Your task to perform on an android device: Open Google Chrome Image 0: 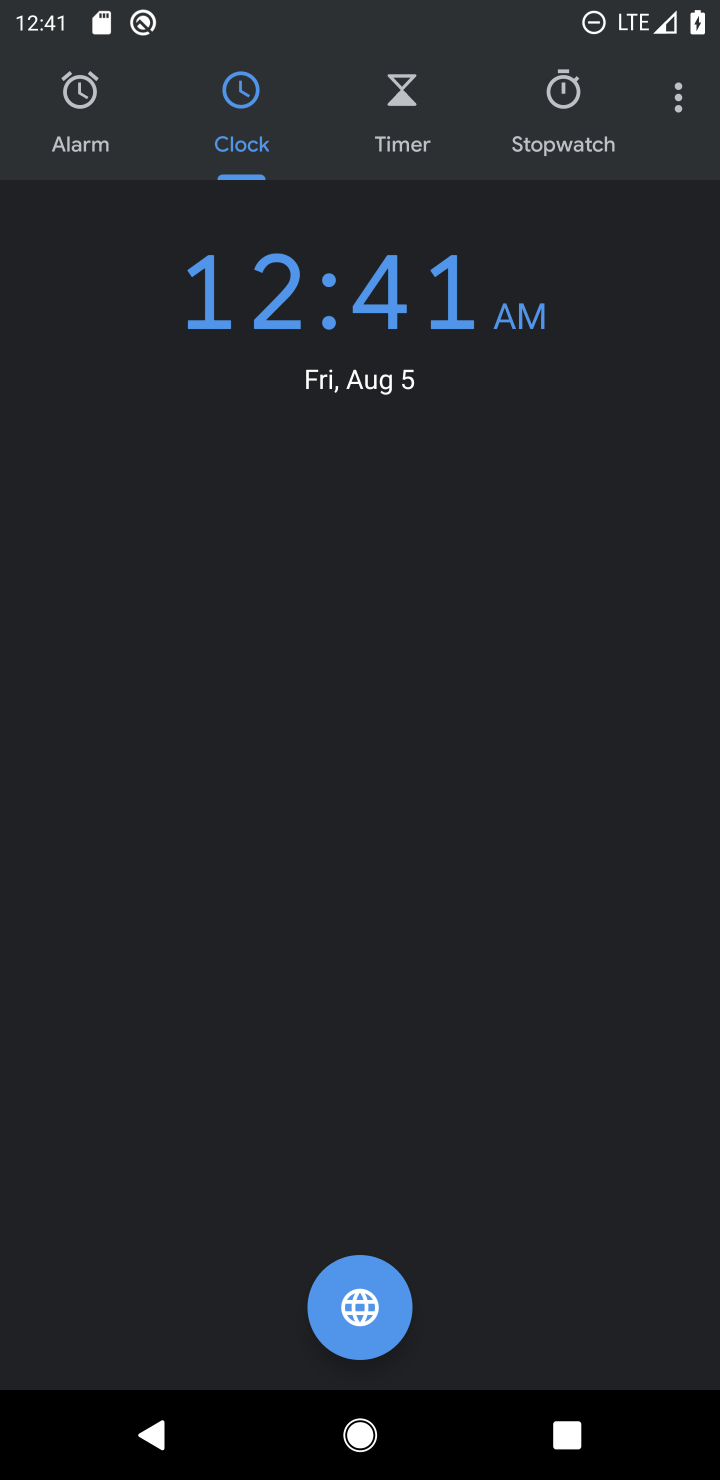
Step 0: press home button
Your task to perform on an android device: Open Google Chrome Image 1: 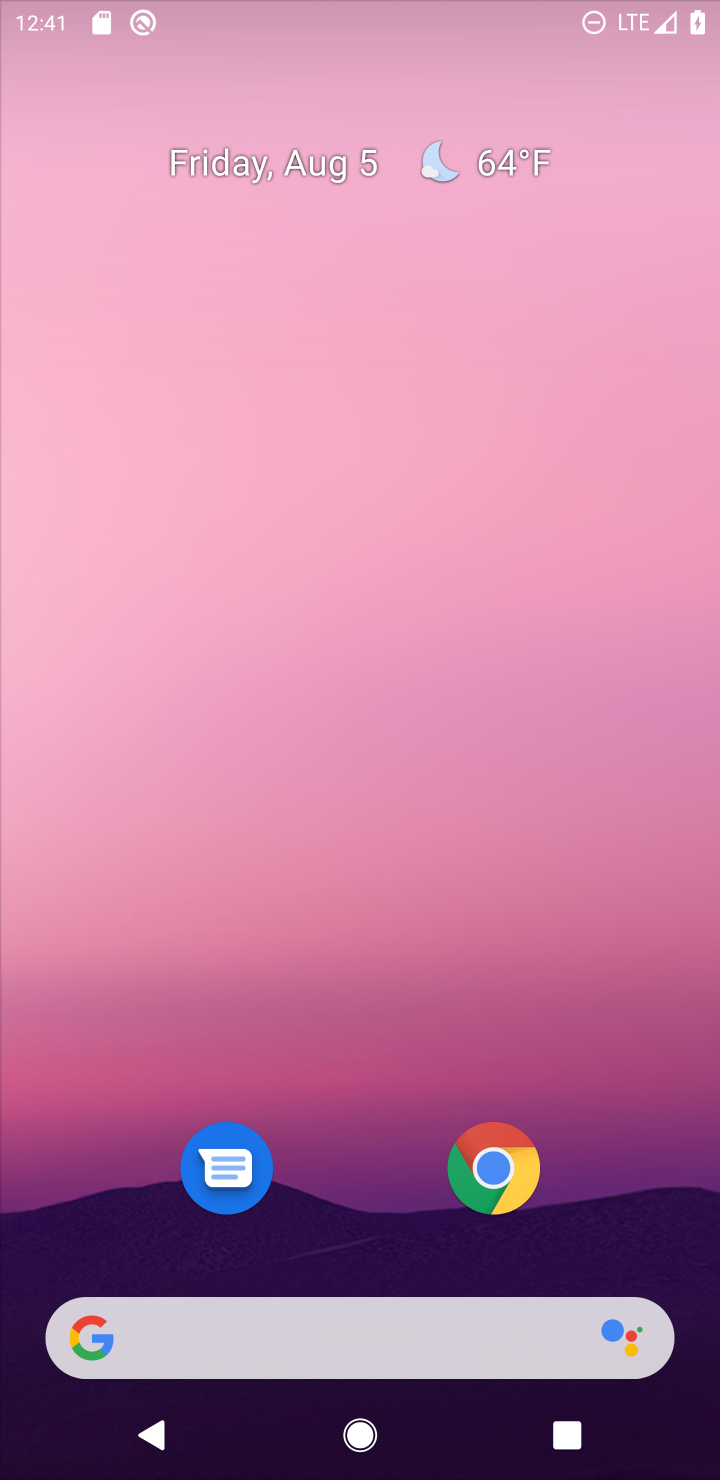
Step 1: drag from (642, 1234) to (319, 70)
Your task to perform on an android device: Open Google Chrome Image 2: 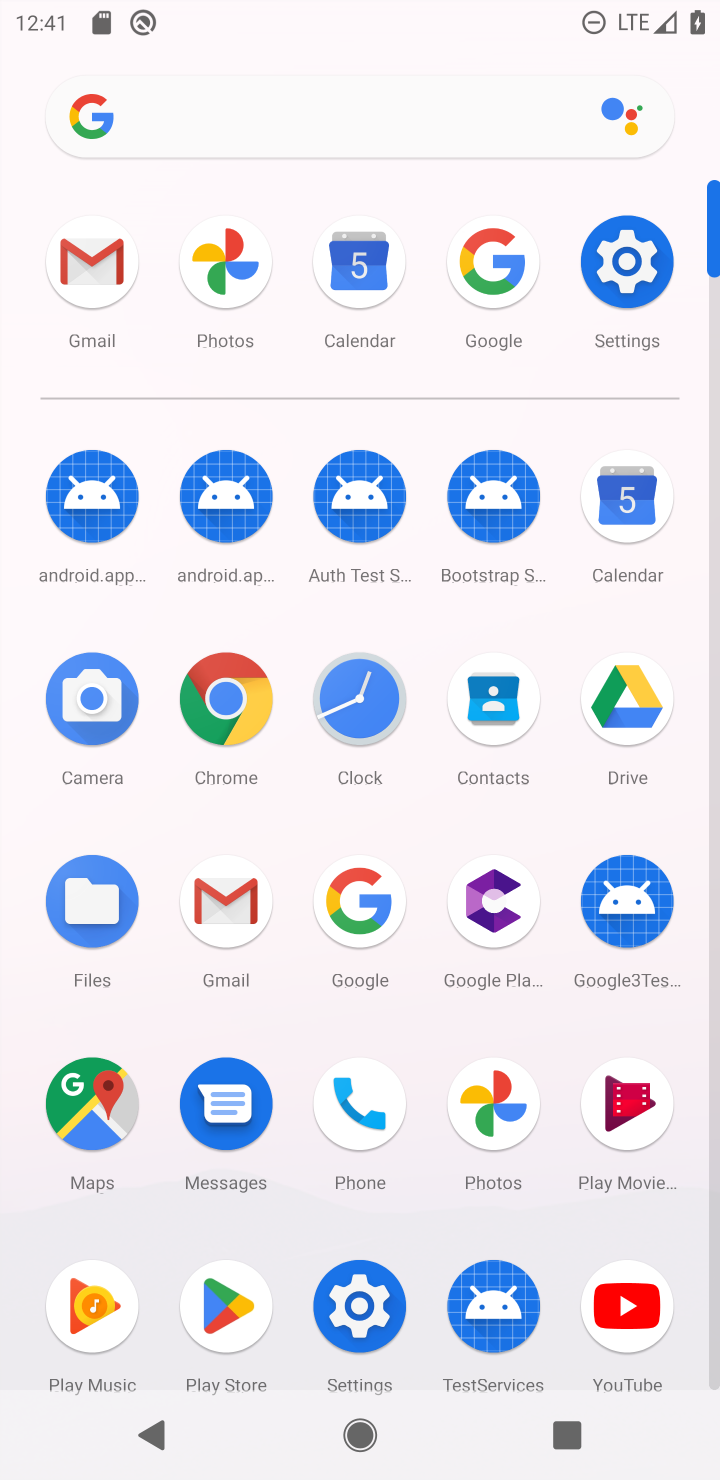
Step 2: click (225, 706)
Your task to perform on an android device: Open Google Chrome Image 3: 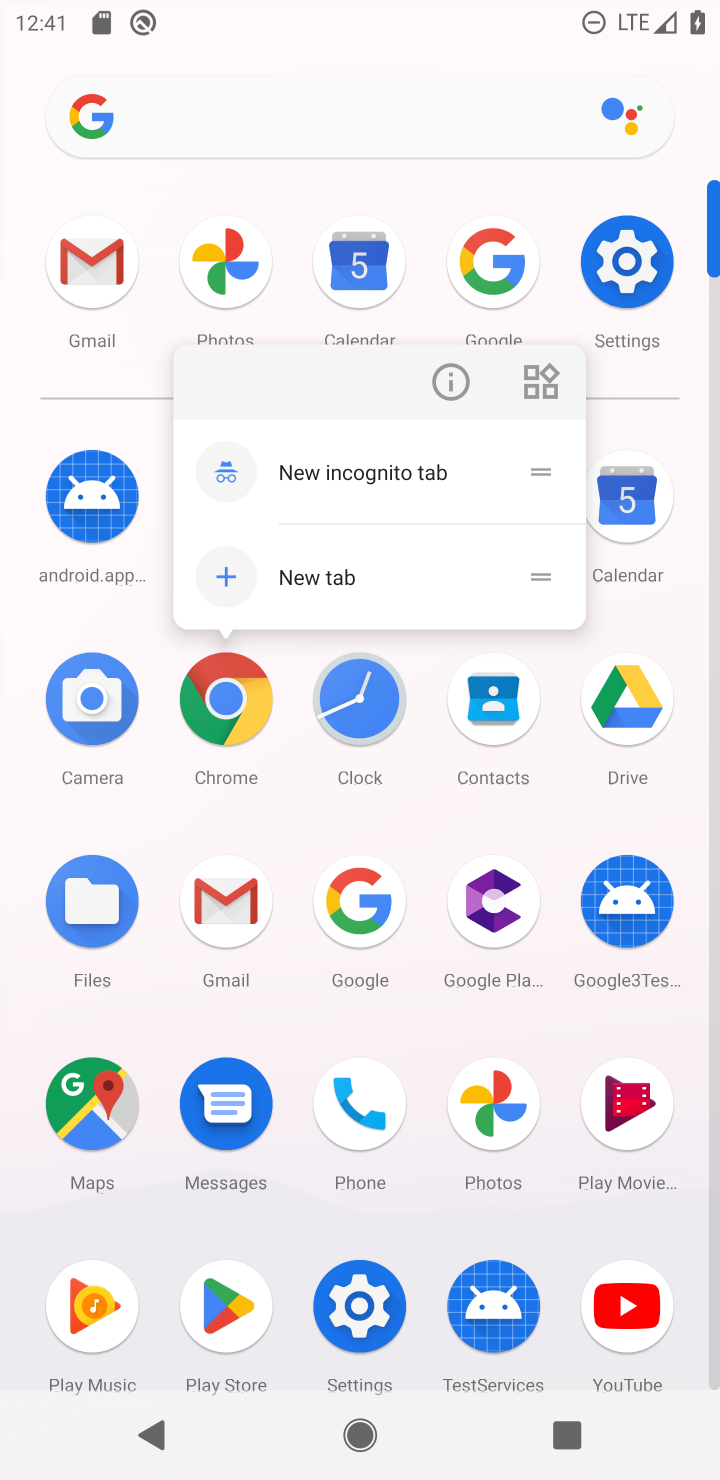
Step 3: click (225, 706)
Your task to perform on an android device: Open Google Chrome Image 4: 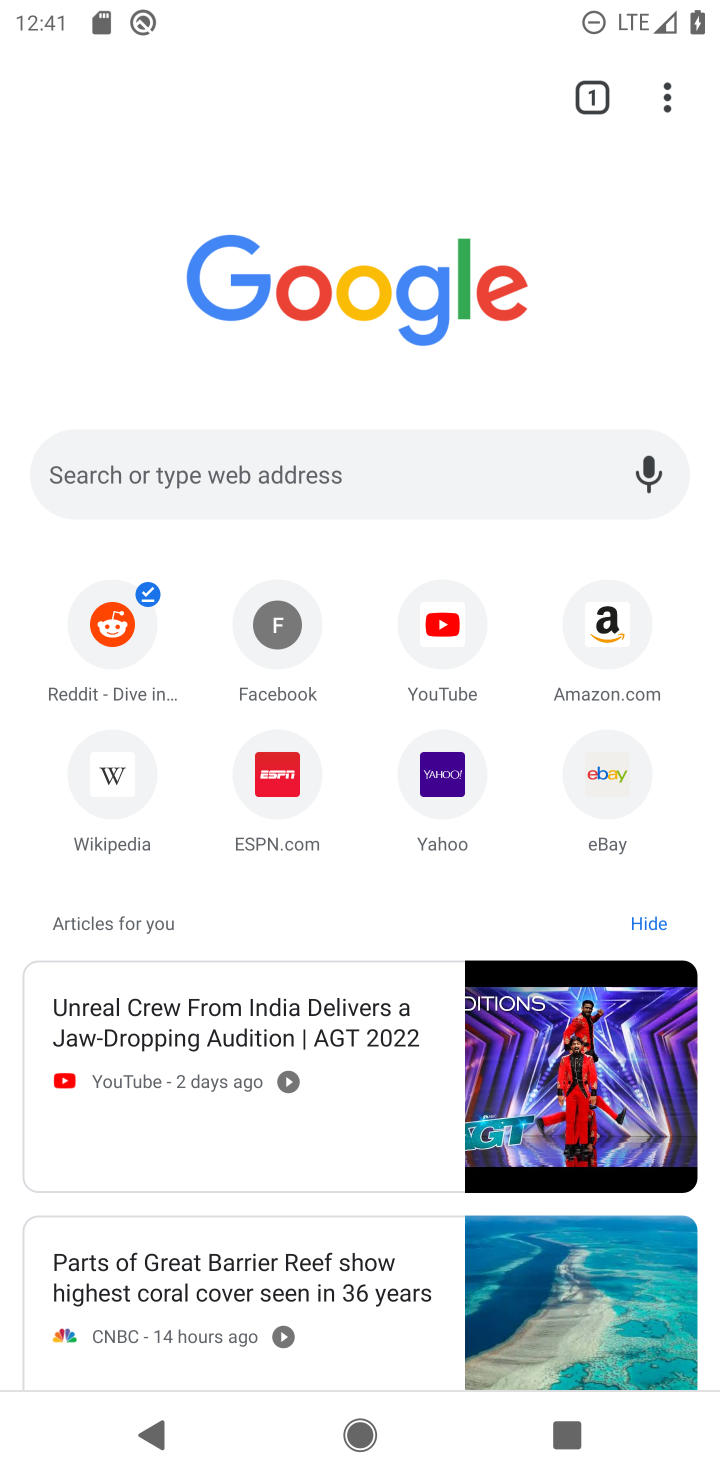
Step 4: task complete